Your task to perform on an android device: Open the calendar and show me this week's events? Image 0: 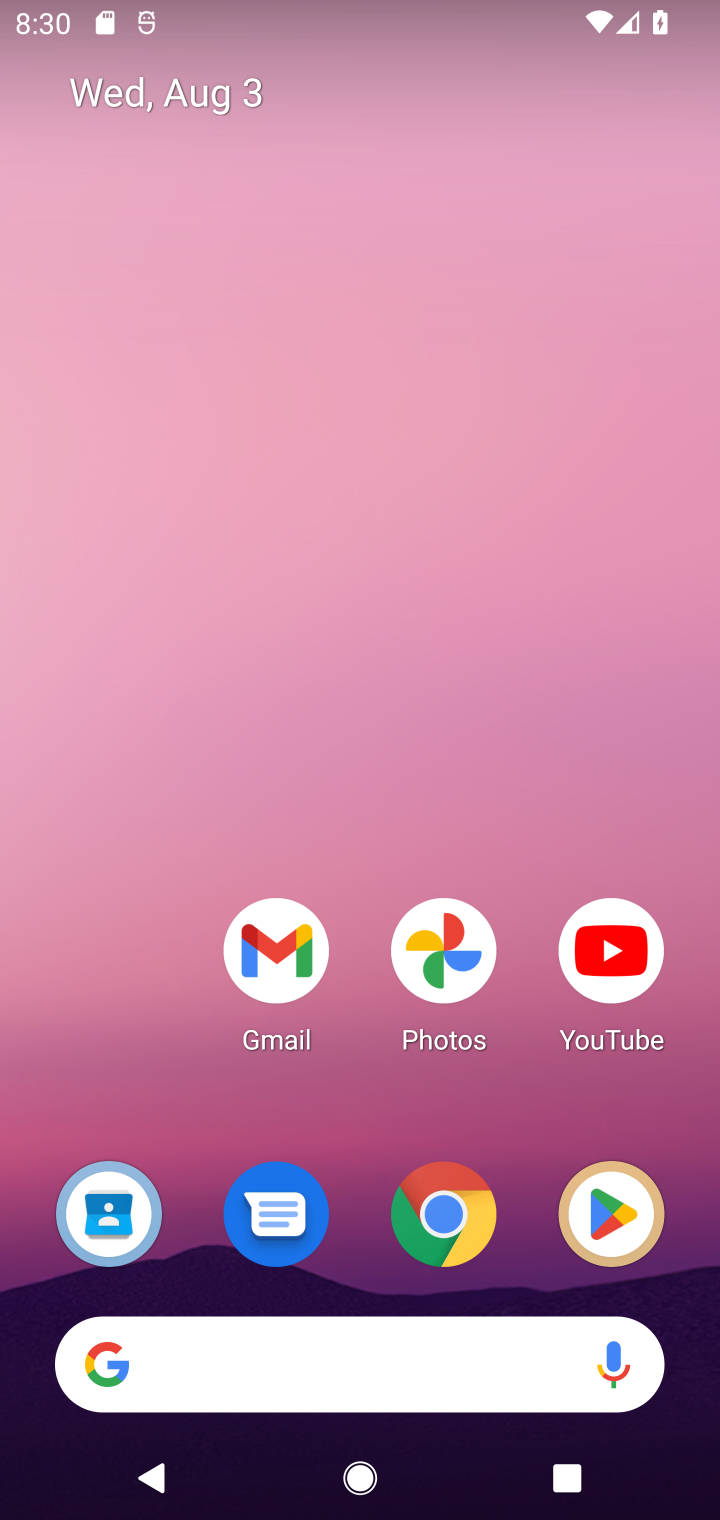
Step 0: drag from (348, 1113) to (498, 14)
Your task to perform on an android device: Open the calendar and show me this week's events? Image 1: 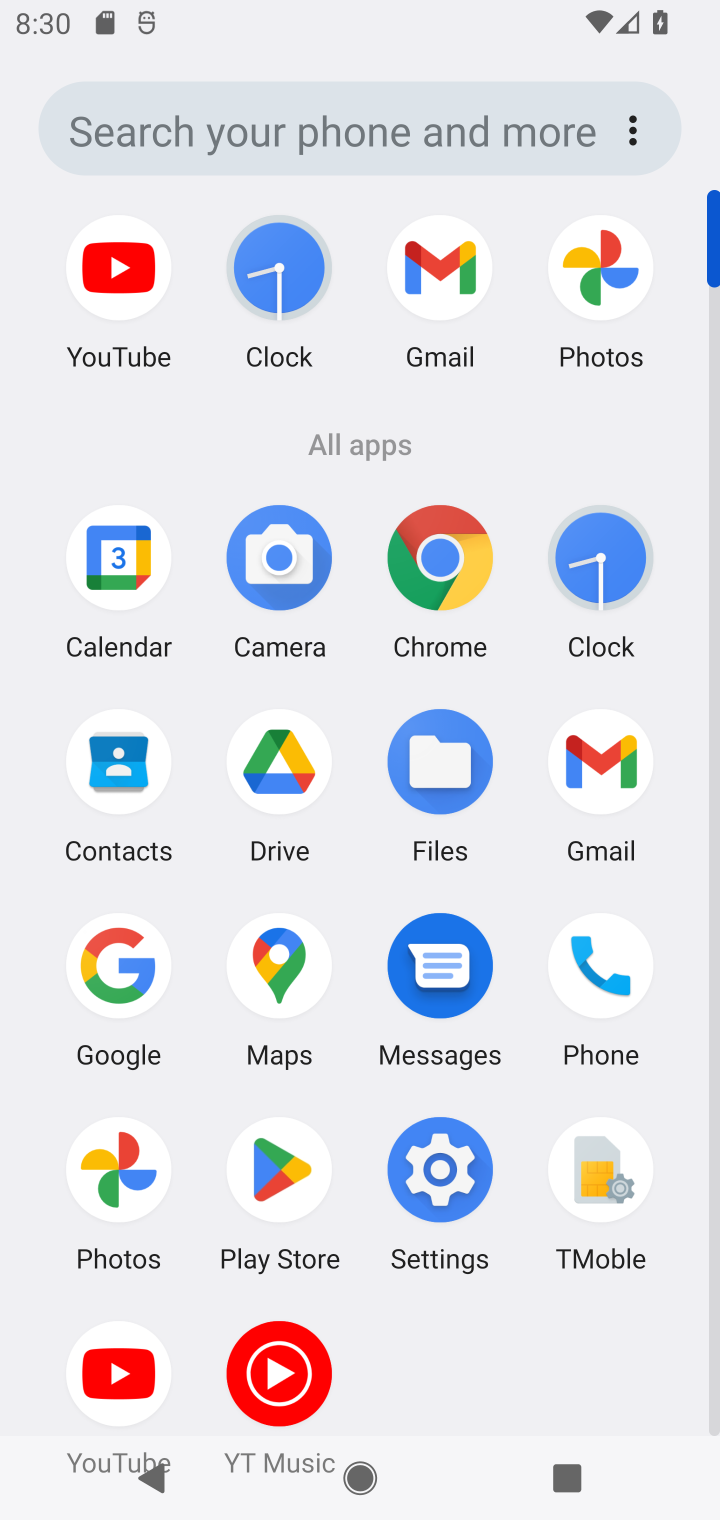
Step 1: click (113, 566)
Your task to perform on an android device: Open the calendar and show me this week's events? Image 2: 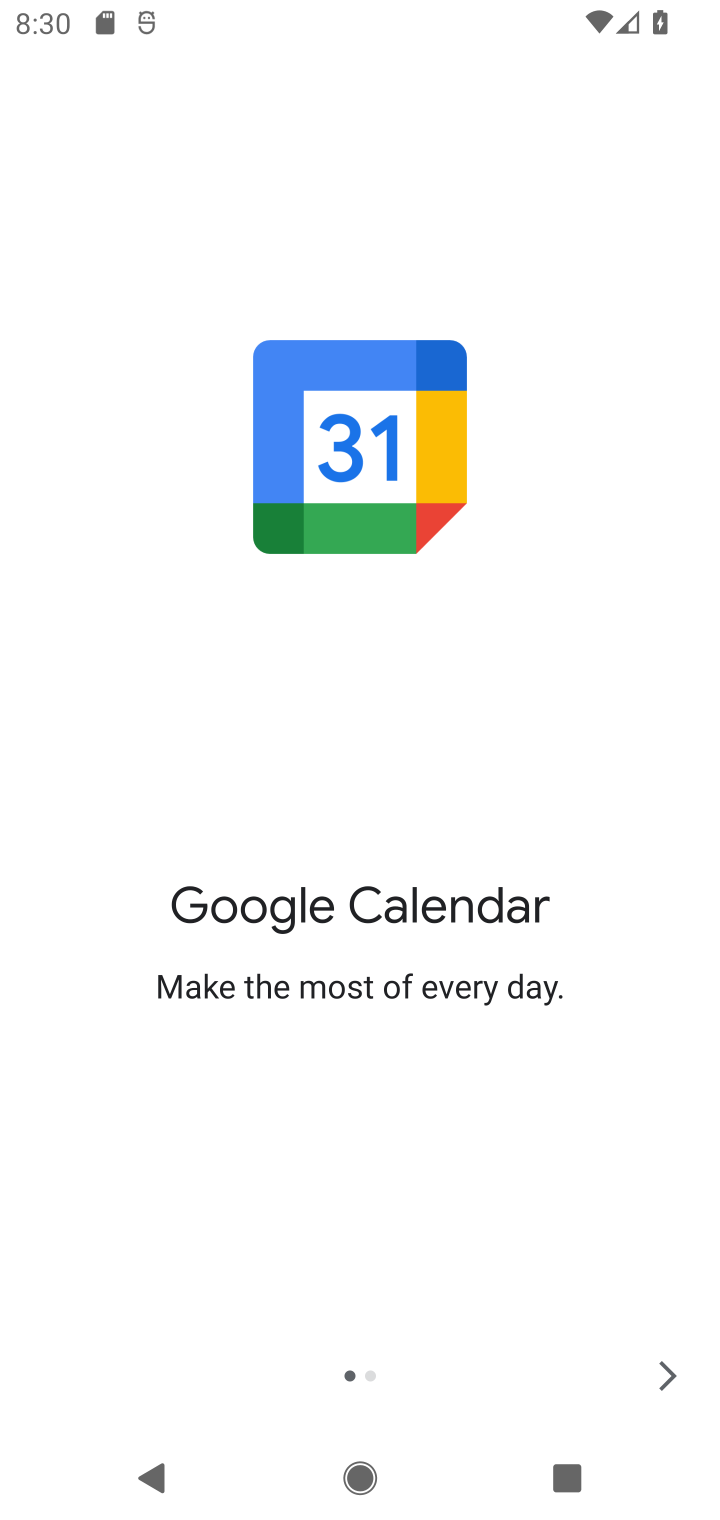
Step 2: click (677, 1357)
Your task to perform on an android device: Open the calendar and show me this week's events? Image 3: 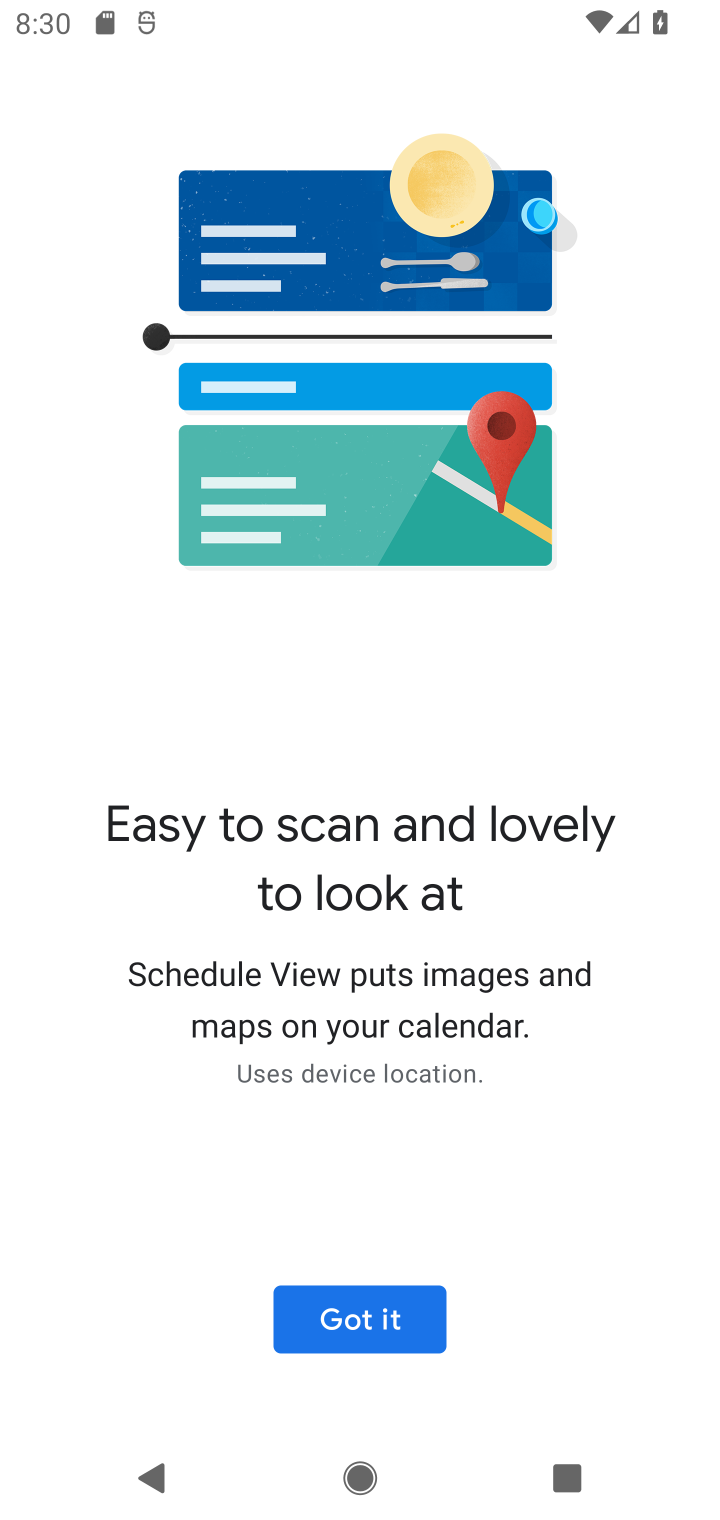
Step 3: click (403, 1321)
Your task to perform on an android device: Open the calendar and show me this week's events? Image 4: 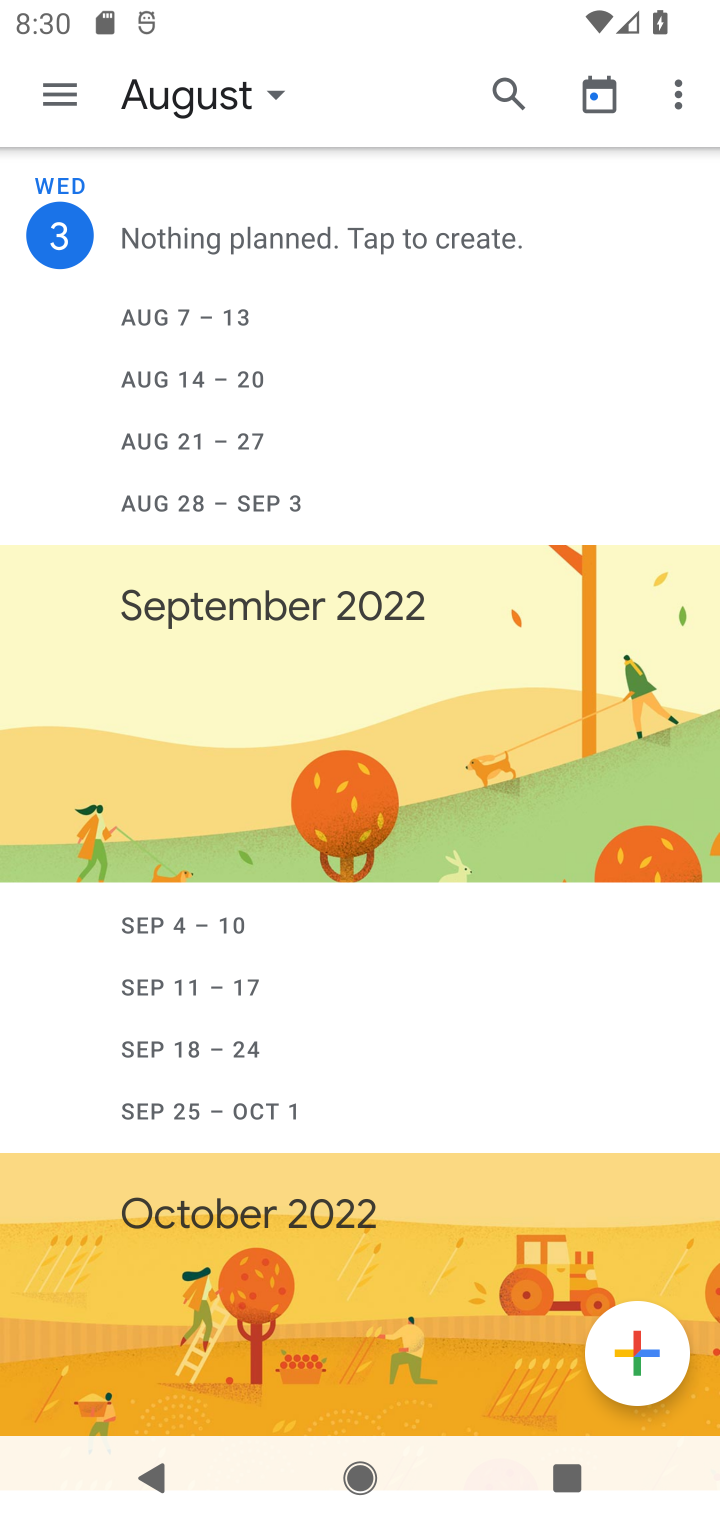
Step 4: click (574, 1281)
Your task to perform on an android device: Open the calendar and show me this week's events? Image 5: 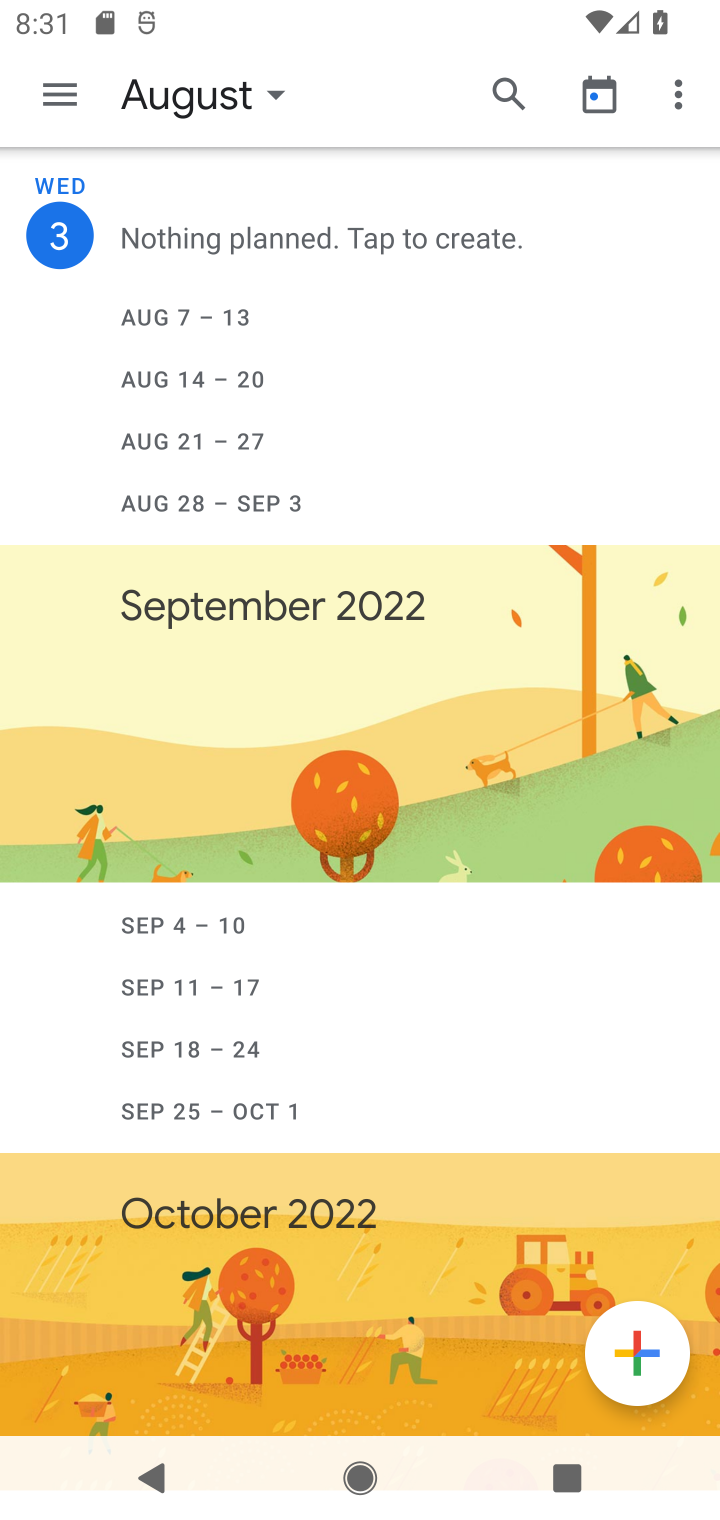
Step 5: click (236, 124)
Your task to perform on an android device: Open the calendar and show me this week's events? Image 6: 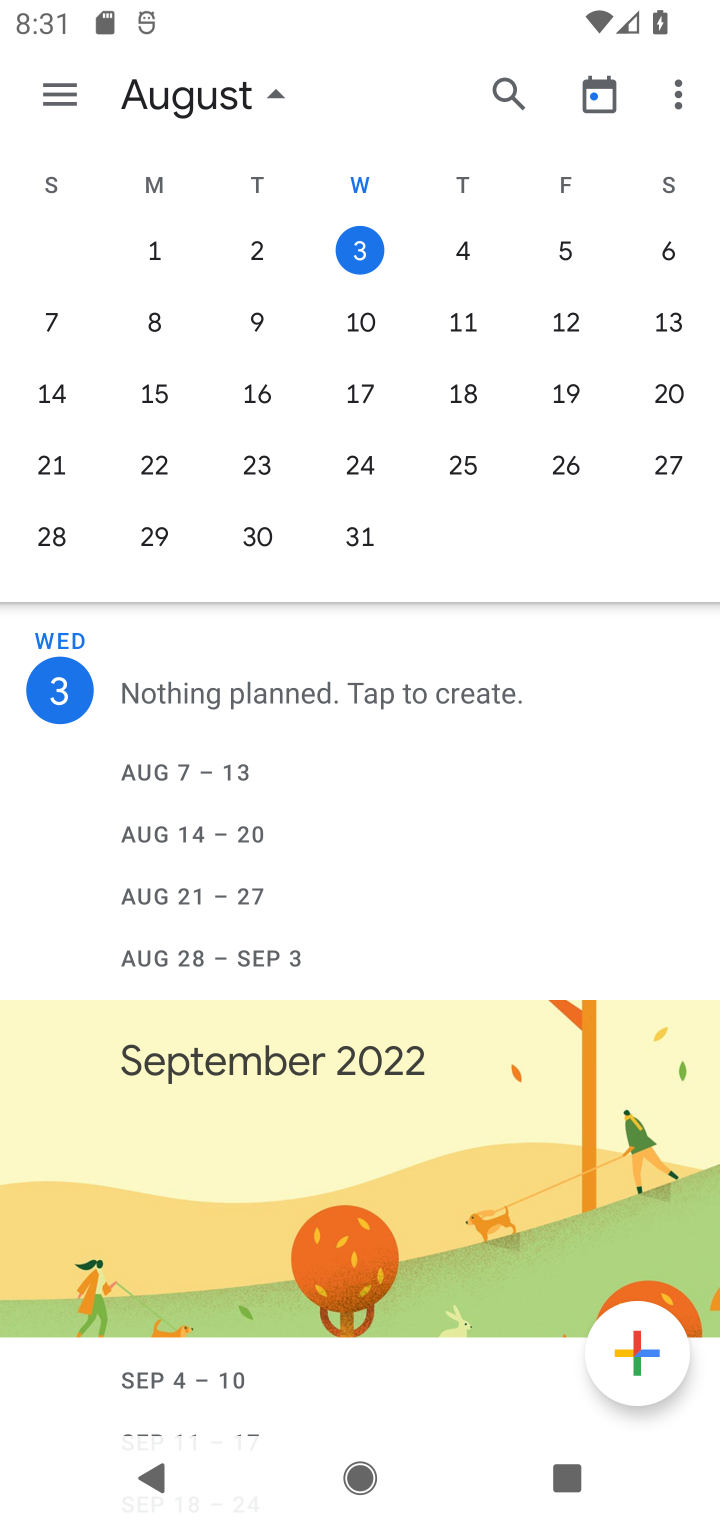
Step 6: click (448, 236)
Your task to perform on an android device: Open the calendar and show me this week's events? Image 7: 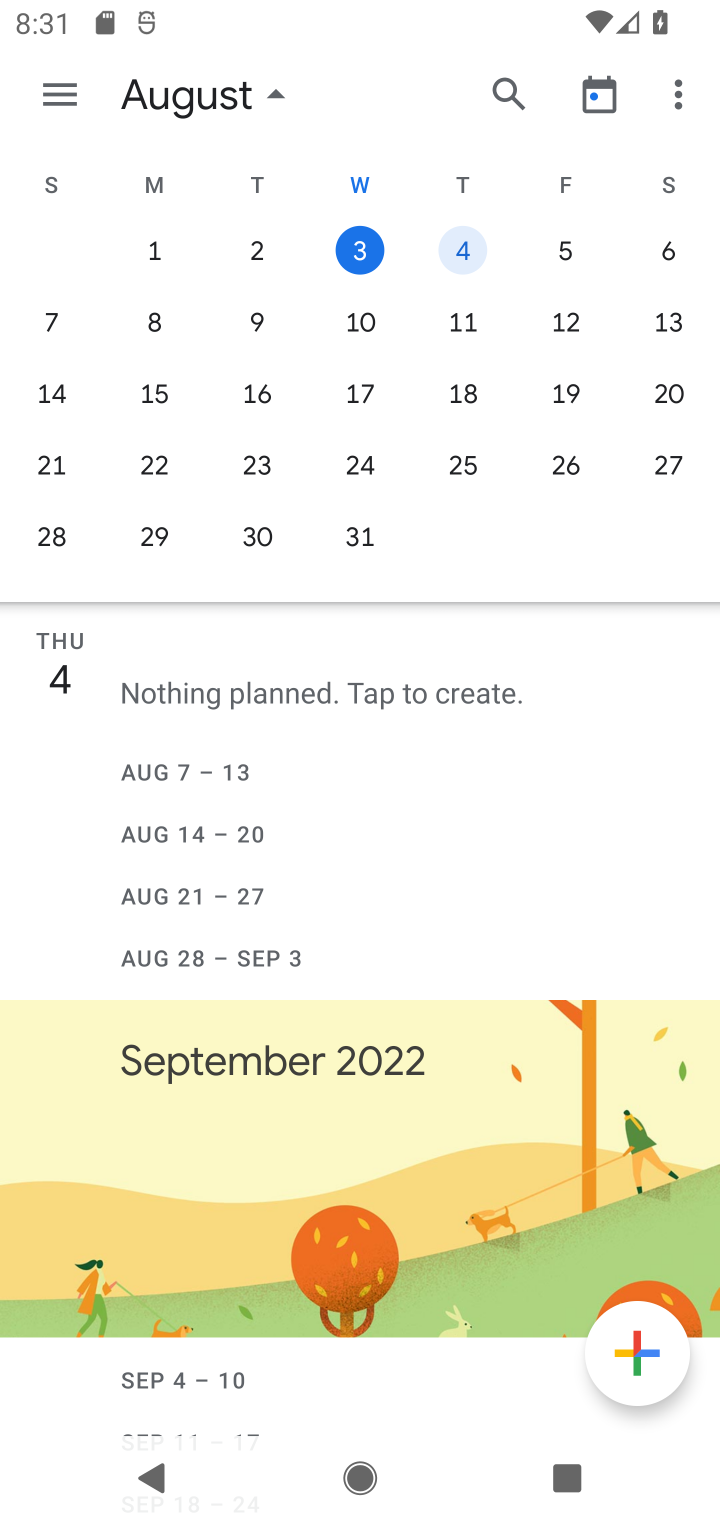
Step 7: click (583, 253)
Your task to perform on an android device: Open the calendar and show me this week's events? Image 8: 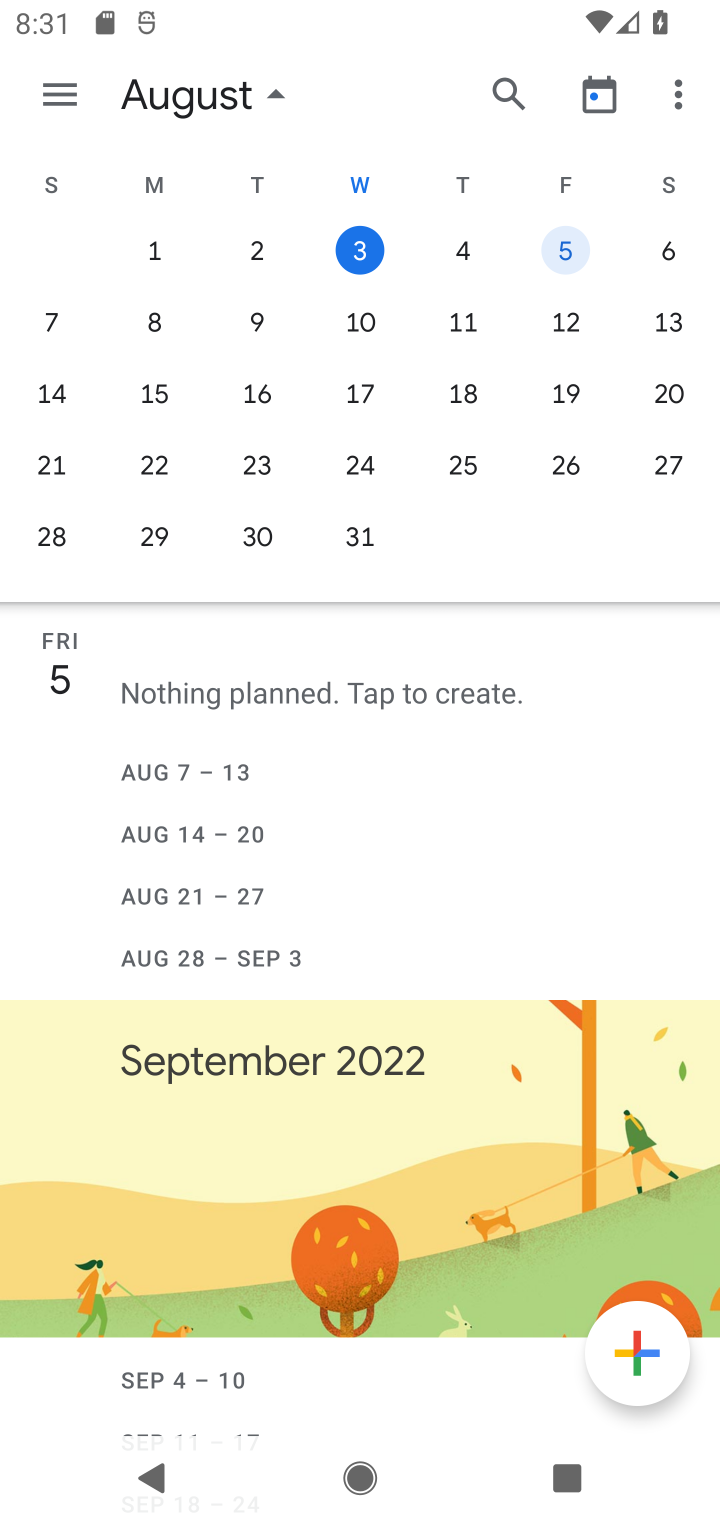
Step 8: click (657, 255)
Your task to perform on an android device: Open the calendar and show me this week's events? Image 9: 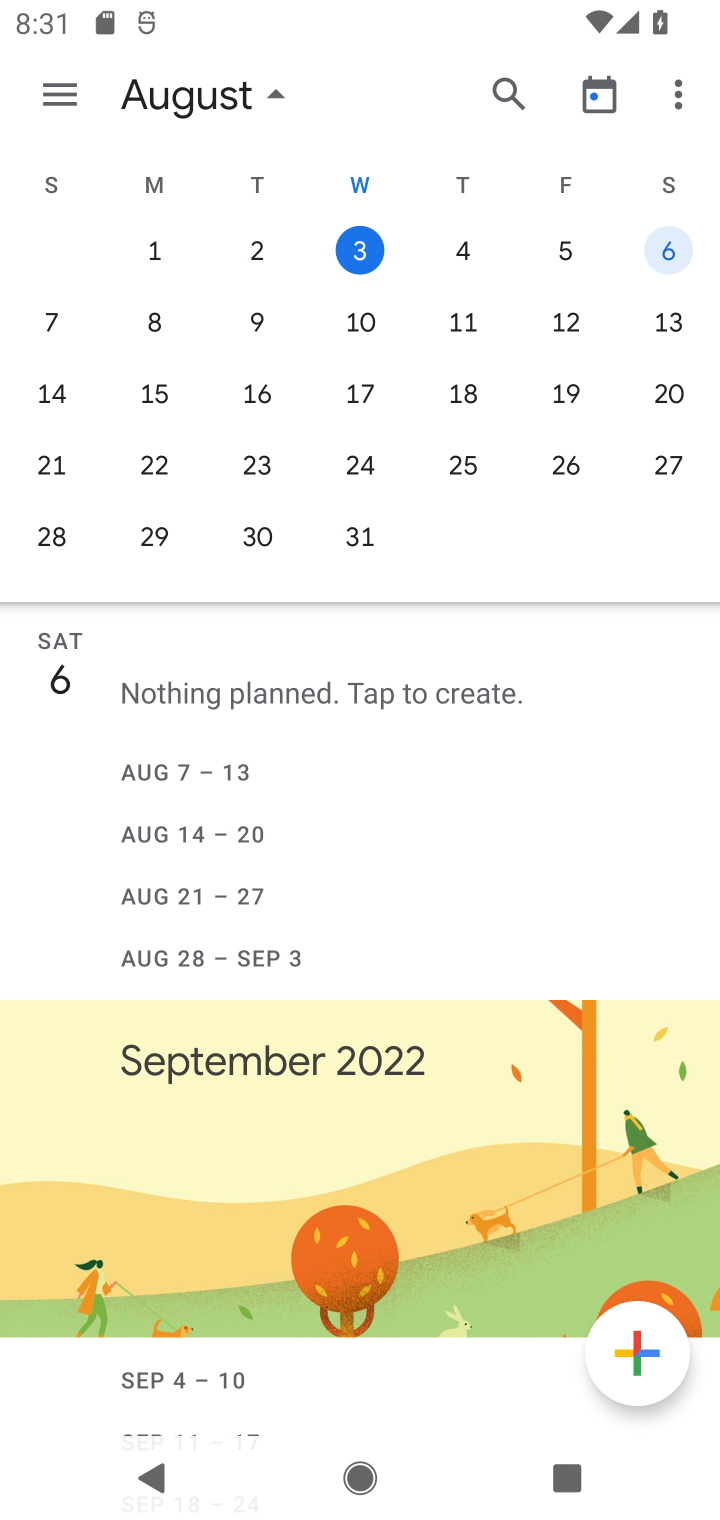
Step 9: task complete